Your task to perform on an android device: Show me recent news Image 0: 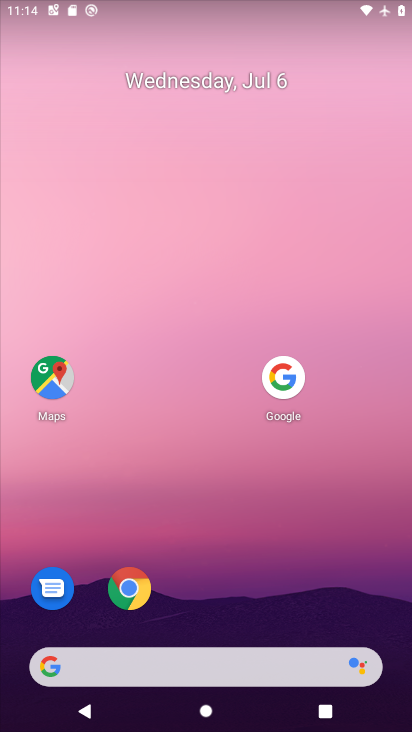
Step 0: click (182, 659)
Your task to perform on an android device: Show me recent news Image 1: 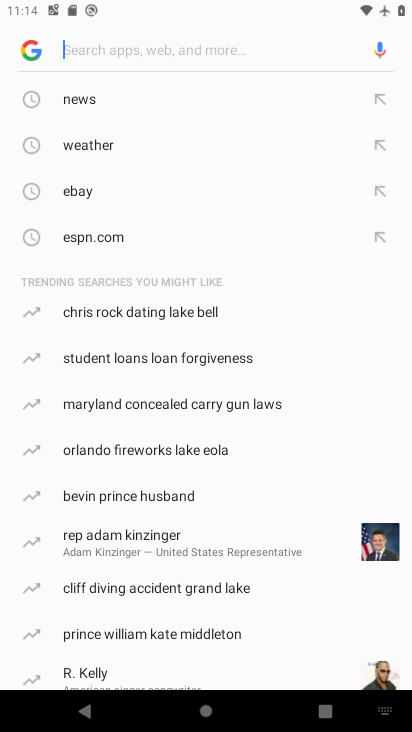
Step 1: click (104, 97)
Your task to perform on an android device: Show me recent news Image 2: 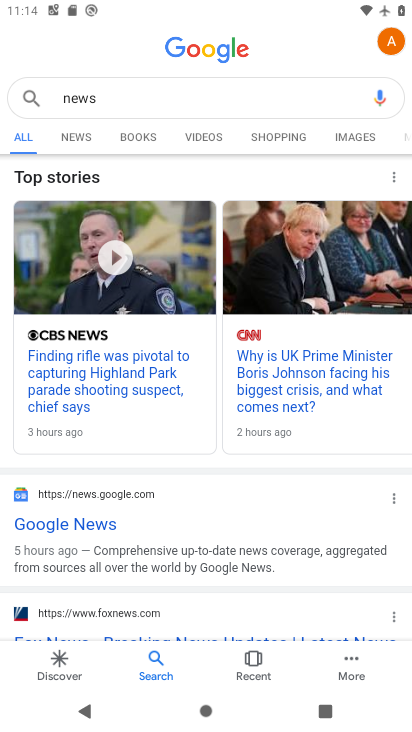
Step 2: task complete